Your task to perform on an android device: add a contact in the contacts app Image 0: 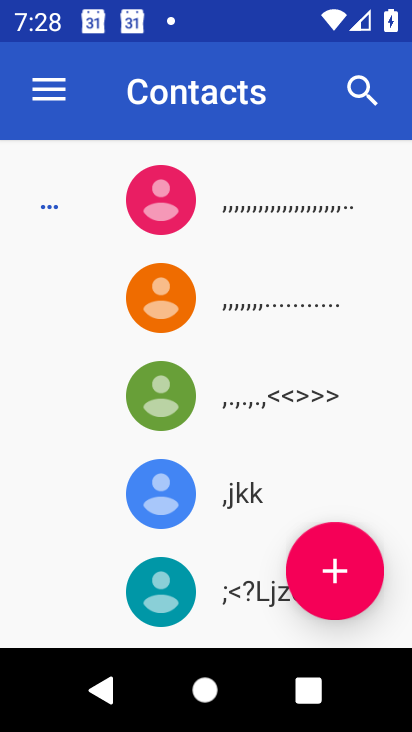
Step 0: press home button
Your task to perform on an android device: add a contact in the contacts app Image 1: 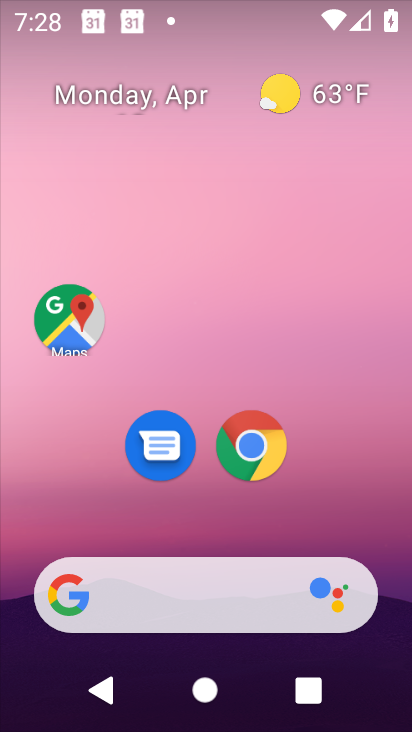
Step 1: drag from (376, 324) to (369, 252)
Your task to perform on an android device: add a contact in the contacts app Image 2: 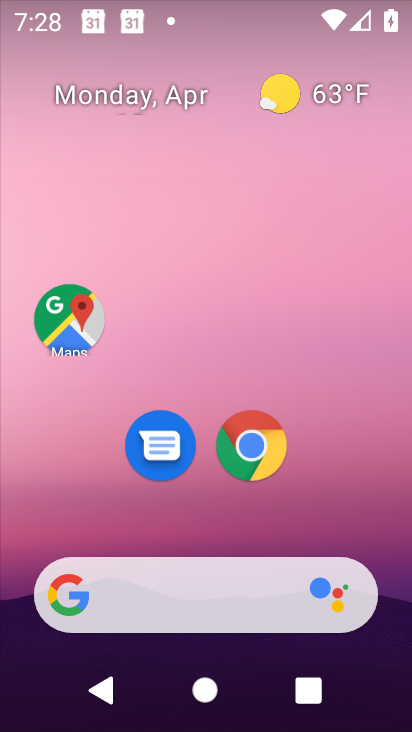
Step 2: drag from (376, 481) to (352, 183)
Your task to perform on an android device: add a contact in the contacts app Image 3: 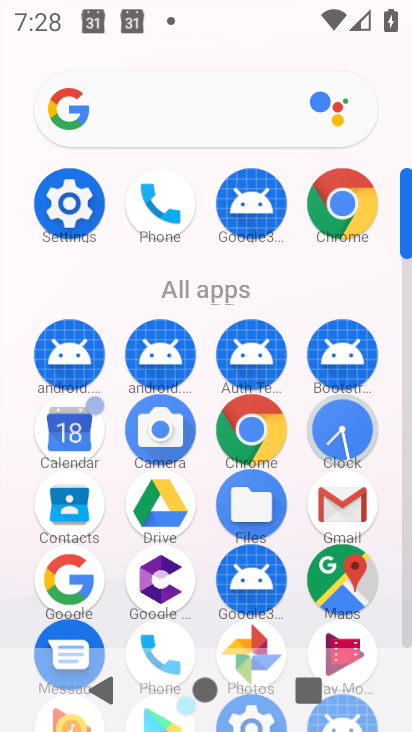
Step 3: drag from (202, 449) to (194, 275)
Your task to perform on an android device: add a contact in the contacts app Image 4: 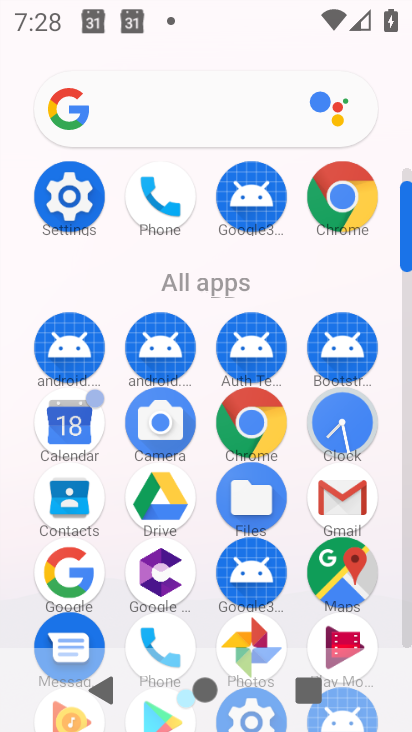
Step 4: click (80, 504)
Your task to perform on an android device: add a contact in the contacts app Image 5: 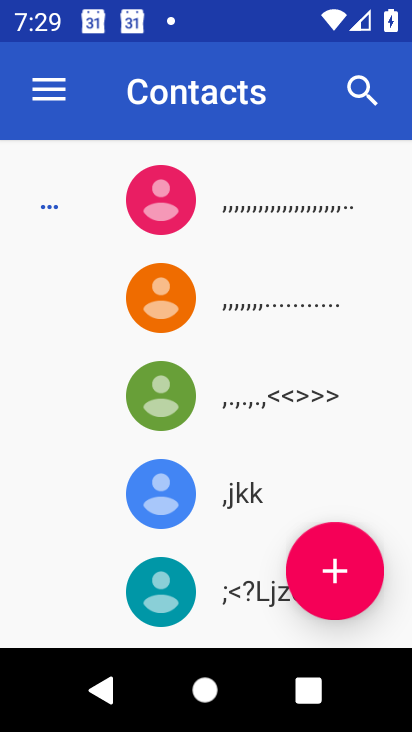
Step 5: click (310, 556)
Your task to perform on an android device: add a contact in the contacts app Image 6: 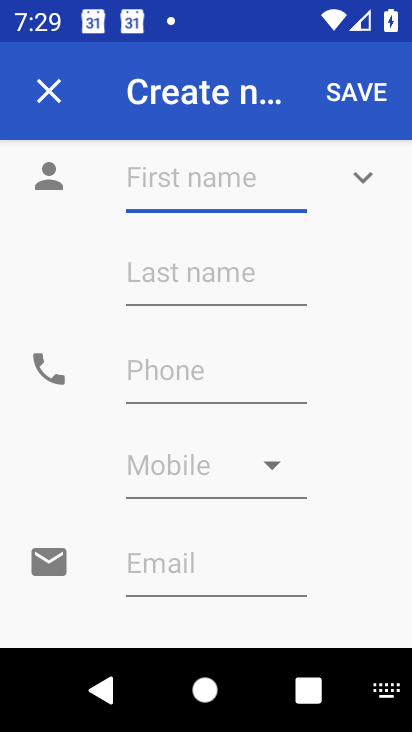
Step 6: click (200, 177)
Your task to perform on an android device: add a contact in the contacts app Image 7: 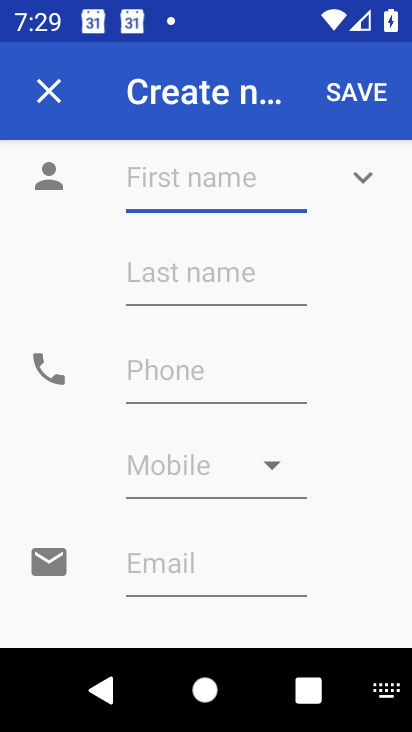
Step 7: type "hhdfhkjbkdfhfd"
Your task to perform on an android device: add a contact in the contacts app Image 8: 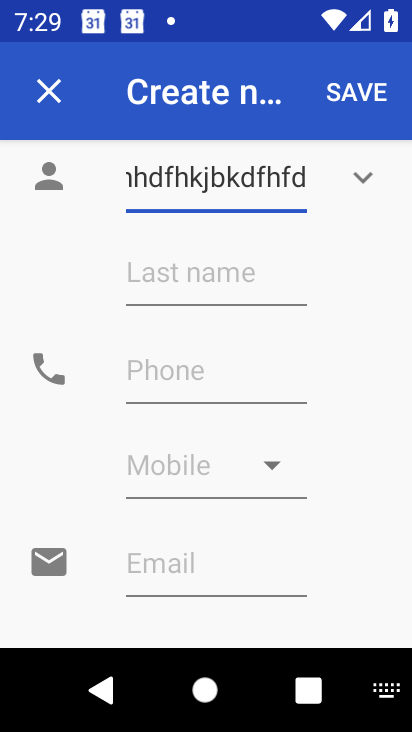
Step 8: click (199, 277)
Your task to perform on an android device: add a contact in the contacts app Image 9: 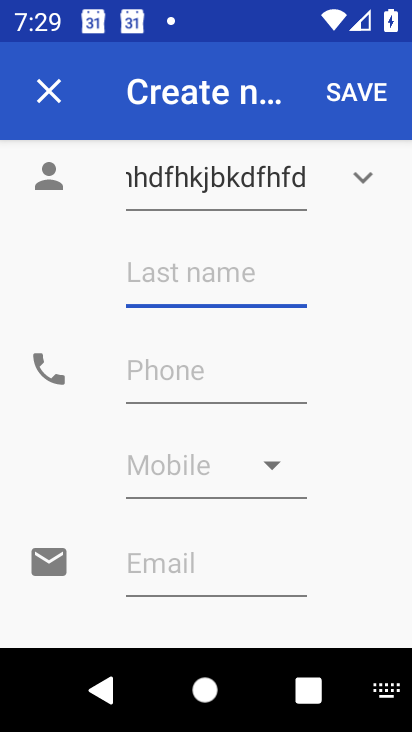
Step 9: type "fdhdhff"
Your task to perform on an android device: add a contact in the contacts app Image 10: 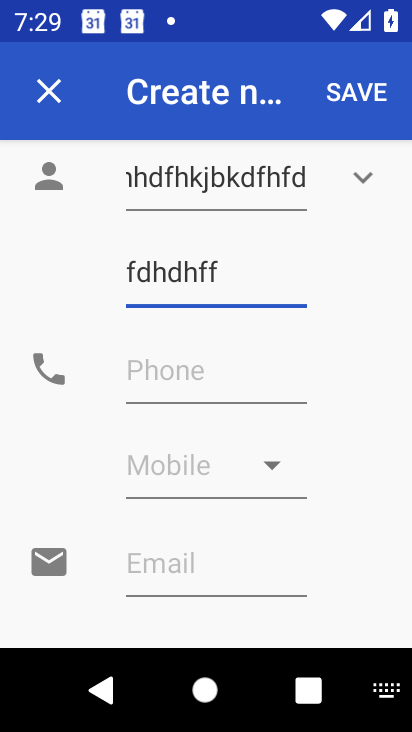
Step 10: click (213, 372)
Your task to perform on an android device: add a contact in the contacts app Image 11: 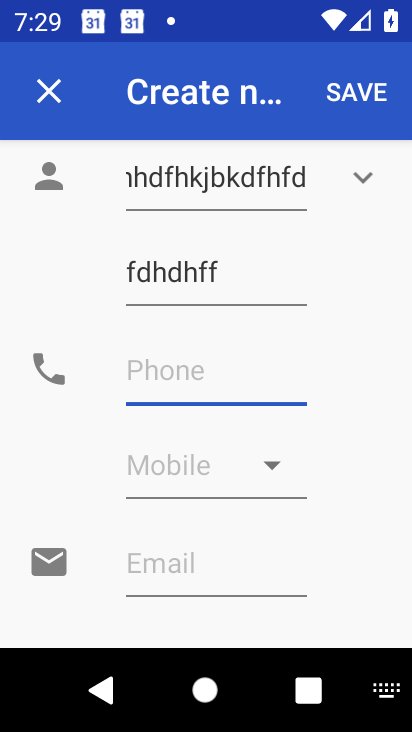
Step 11: type "8579567654775"
Your task to perform on an android device: add a contact in the contacts app Image 12: 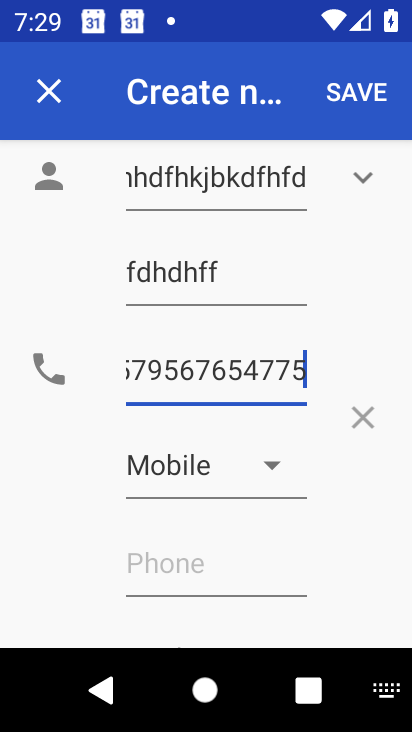
Step 12: click (350, 85)
Your task to perform on an android device: add a contact in the contacts app Image 13: 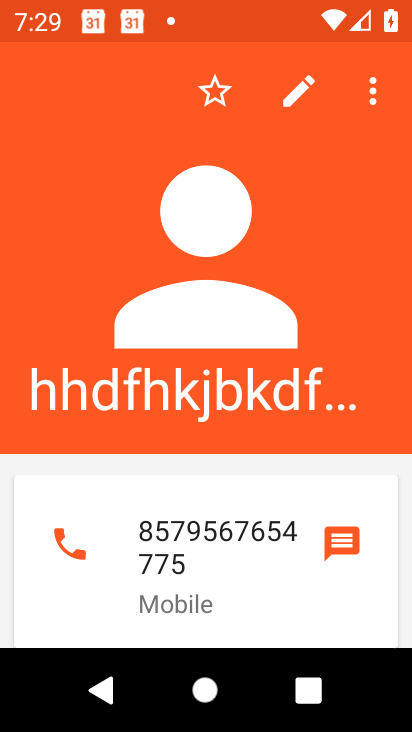
Step 13: task complete